Your task to perform on an android device: star an email in the gmail app Image 0: 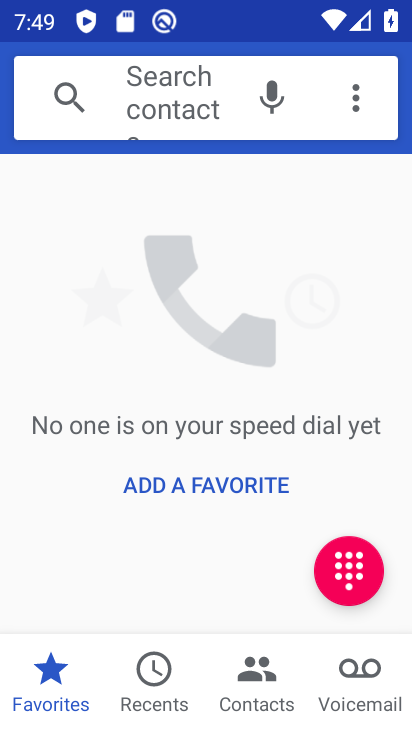
Step 0: press home button
Your task to perform on an android device: star an email in the gmail app Image 1: 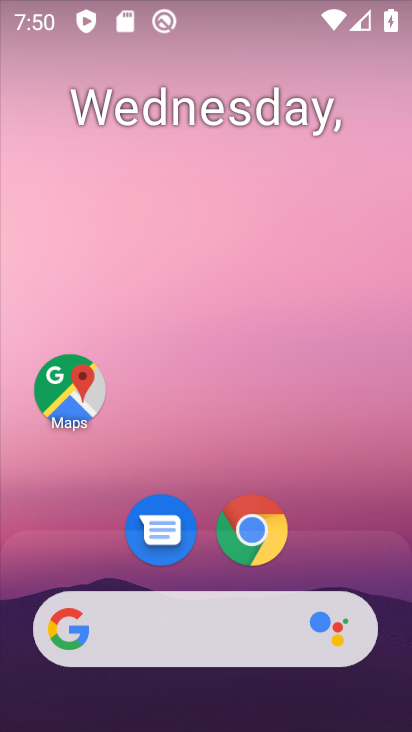
Step 1: drag from (217, 527) to (305, 7)
Your task to perform on an android device: star an email in the gmail app Image 2: 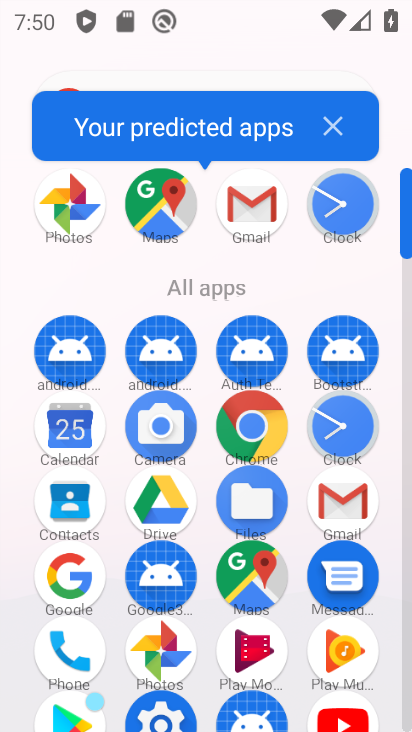
Step 2: click (235, 213)
Your task to perform on an android device: star an email in the gmail app Image 3: 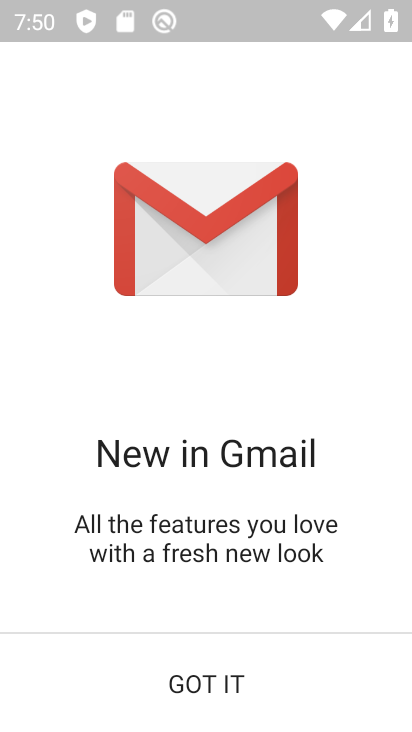
Step 3: click (207, 682)
Your task to perform on an android device: star an email in the gmail app Image 4: 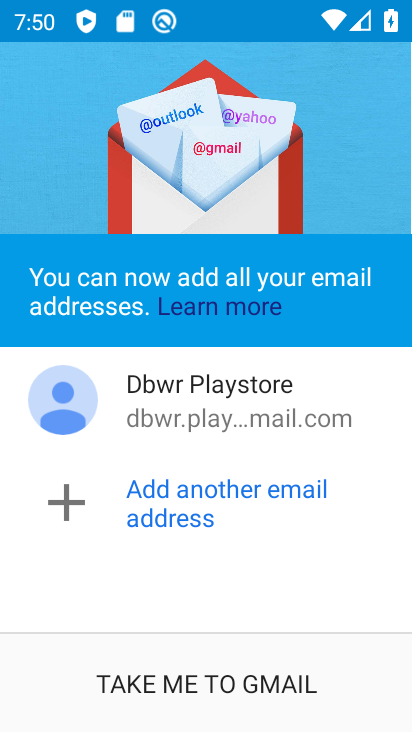
Step 4: click (207, 682)
Your task to perform on an android device: star an email in the gmail app Image 5: 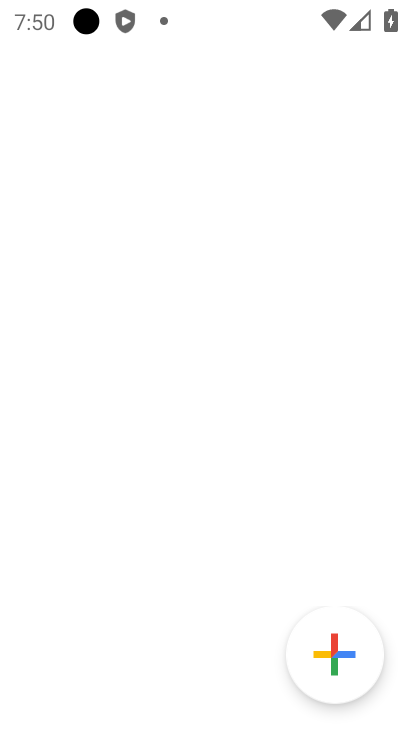
Step 5: click (207, 682)
Your task to perform on an android device: star an email in the gmail app Image 6: 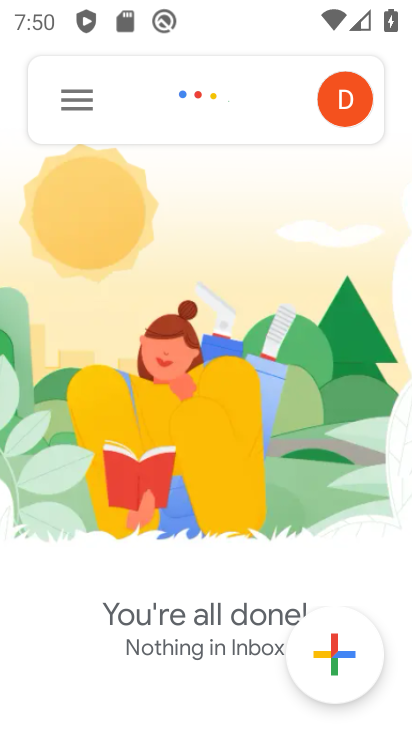
Step 6: click (71, 96)
Your task to perform on an android device: star an email in the gmail app Image 7: 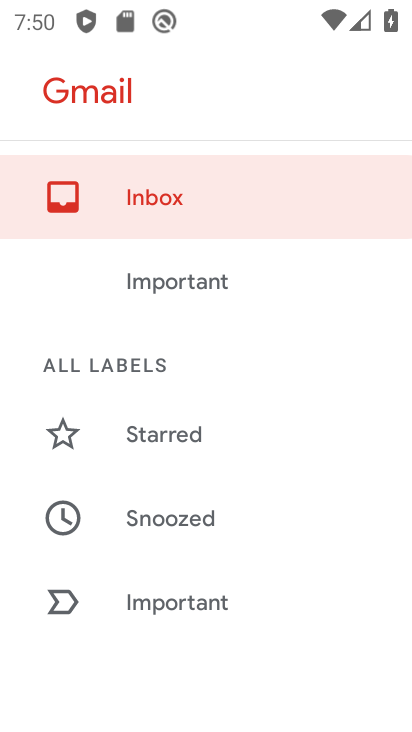
Step 7: drag from (183, 603) to (279, 120)
Your task to perform on an android device: star an email in the gmail app Image 8: 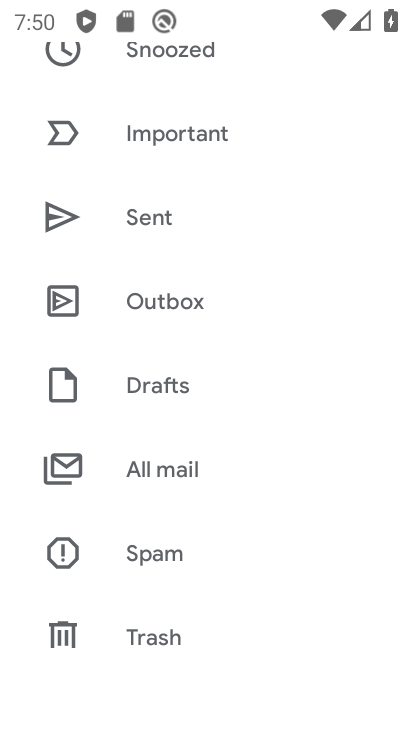
Step 8: click (182, 465)
Your task to perform on an android device: star an email in the gmail app Image 9: 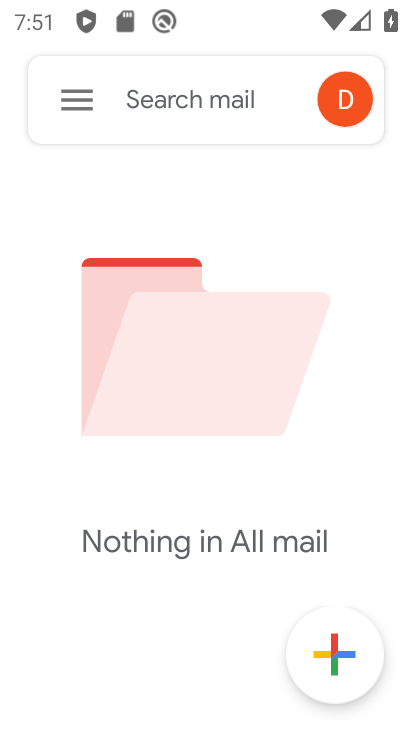
Step 9: task complete